Your task to perform on an android device: turn off sleep mode Image 0: 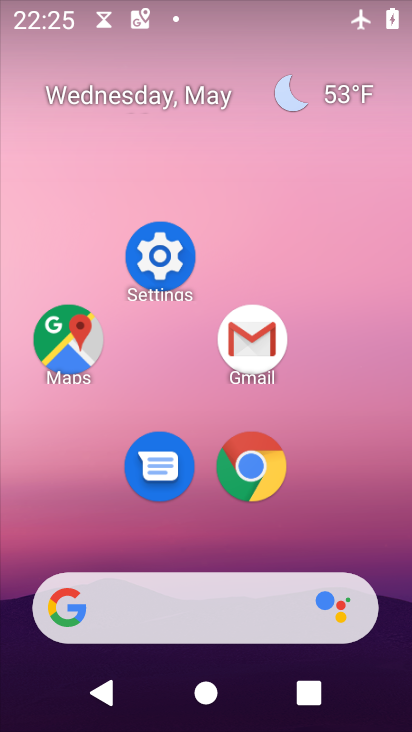
Step 0: drag from (195, 542) to (196, 64)
Your task to perform on an android device: turn off sleep mode Image 1: 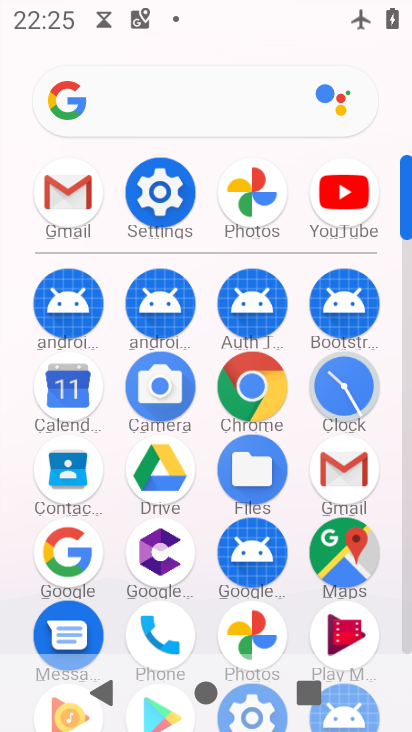
Step 1: click (165, 192)
Your task to perform on an android device: turn off sleep mode Image 2: 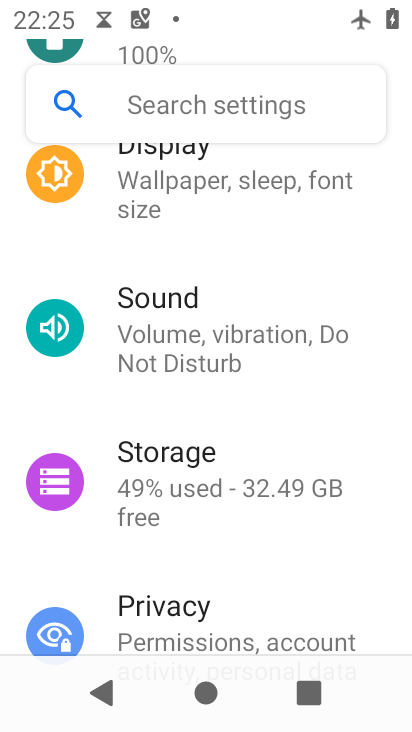
Step 2: drag from (230, 596) to (275, 725)
Your task to perform on an android device: turn off sleep mode Image 3: 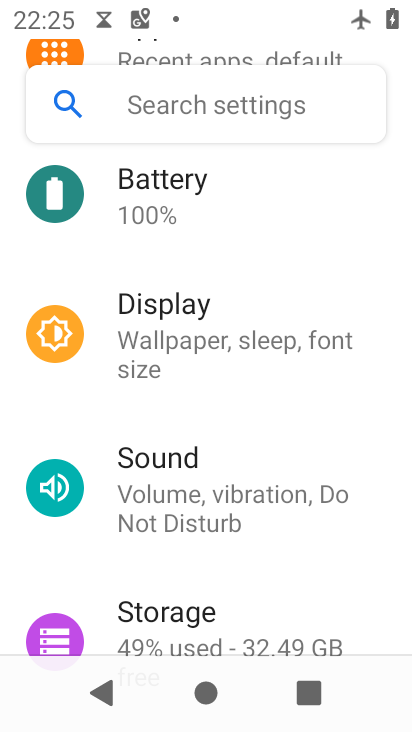
Step 3: drag from (238, 281) to (344, 719)
Your task to perform on an android device: turn off sleep mode Image 4: 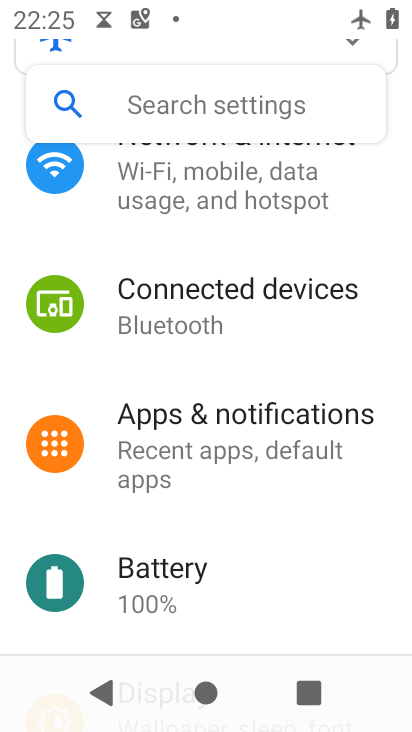
Step 4: drag from (239, 233) to (307, 603)
Your task to perform on an android device: turn off sleep mode Image 5: 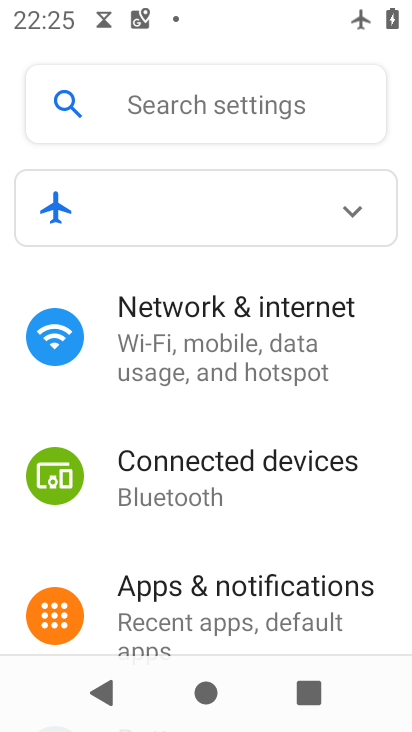
Step 5: drag from (290, 590) to (270, 220)
Your task to perform on an android device: turn off sleep mode Image 6: 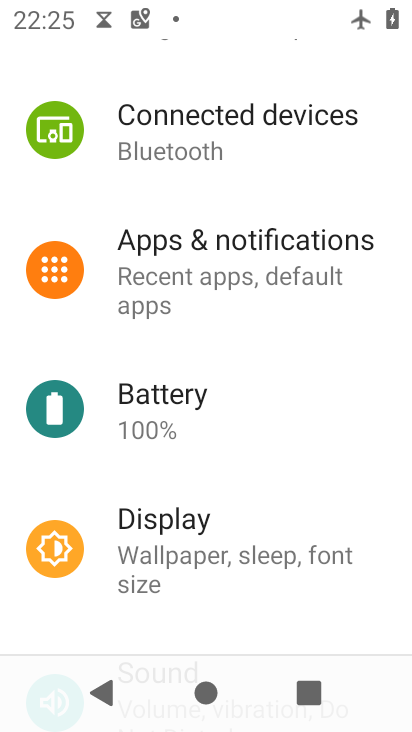
Step 6: drag from (231, 624) to (277, 396)
Your task to perform on an android device: turn off sleep mode Image 7: 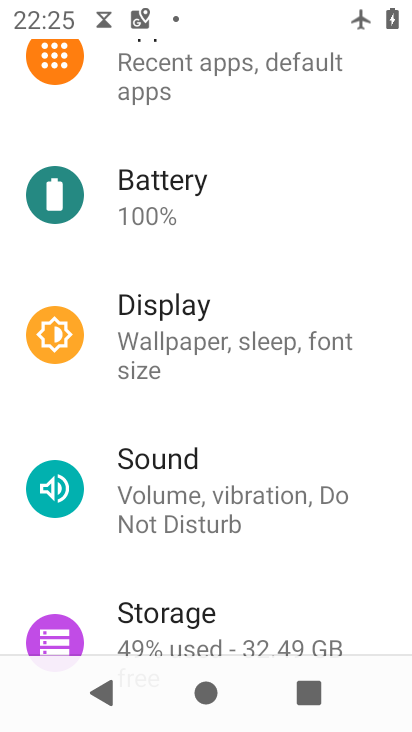
Step 7: click (220, 364)
Your task to perform on an android device: turn off sleep mode Image 8: 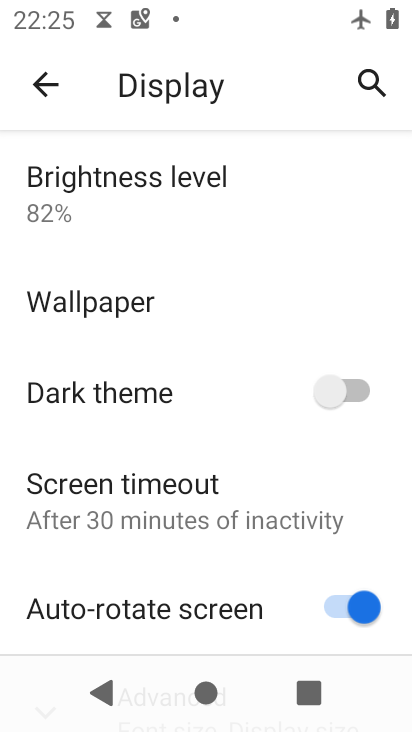
Step 8: click (205, 529)
Your task to perform on an android device: turn off sleep mode Image 9: 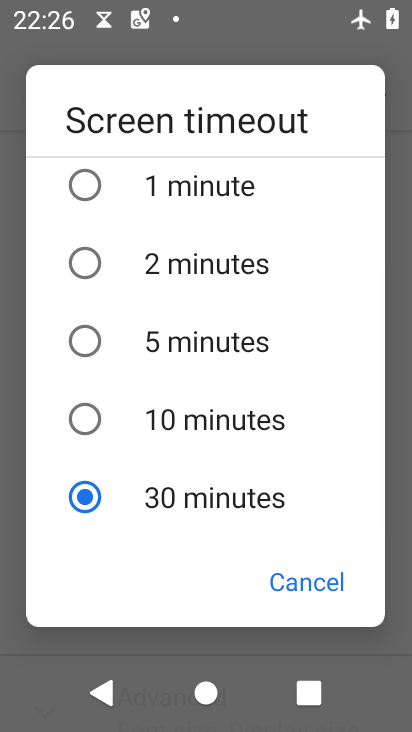
Step 9: task complete